Your task to perform on an android device: turn on improve location accuracy Image 0: 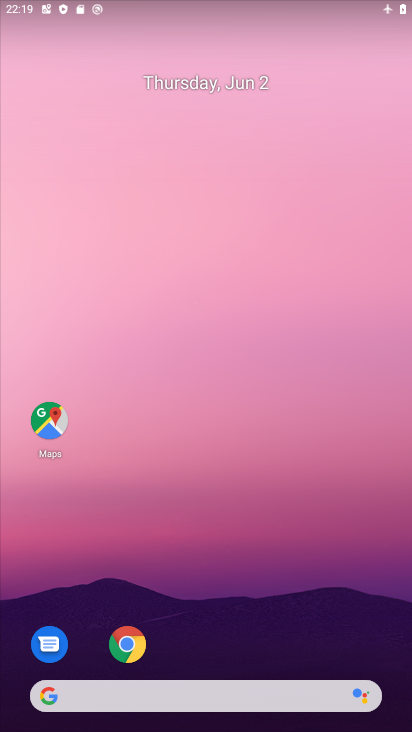
Step 0: drag from (200, 650) to (199, 127)
Your task to perform on an android device: turn on improve location accuracy Image 1: 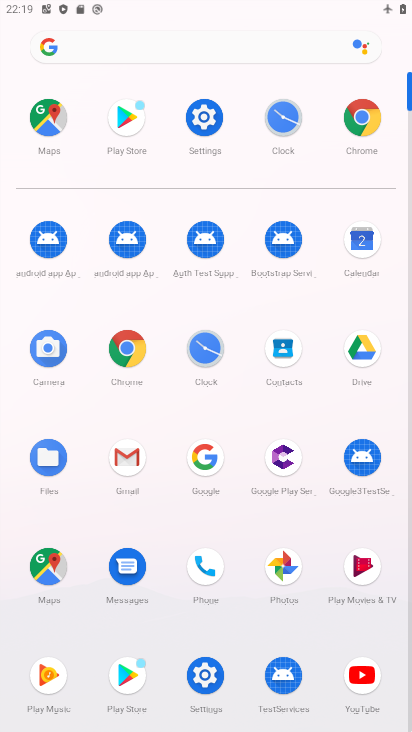
Step 1: click (208, 113)
Your task to perform on an android device: turn on improve location accuracy Image 2: 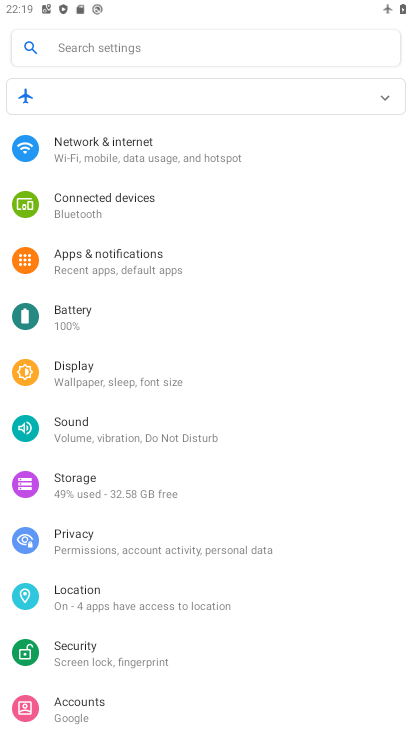
Step 2: click (74, 615)
Your task to perform on an android device: turn on improve location accuracy Image 3: 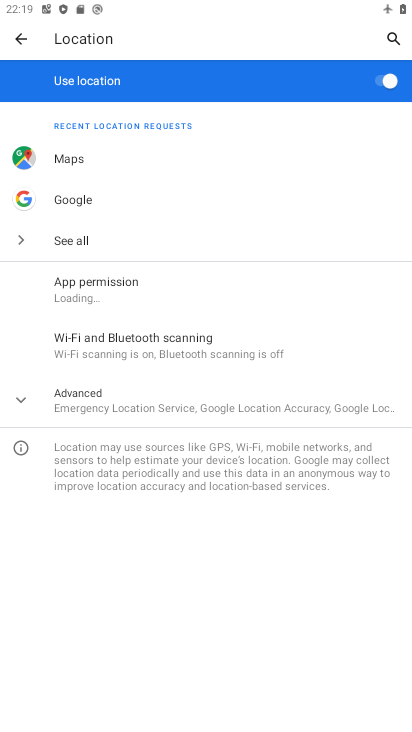
Step 3: click (69, 415)
Your task to perform on an android device: turn on improve location accuracy Image 4: 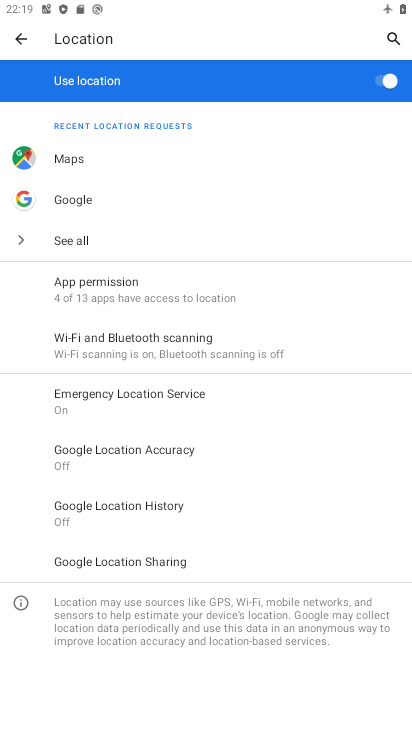
Step 4: click (127, 454)
Your task to perform on an android device: turn on improve location accuracy Image 5: 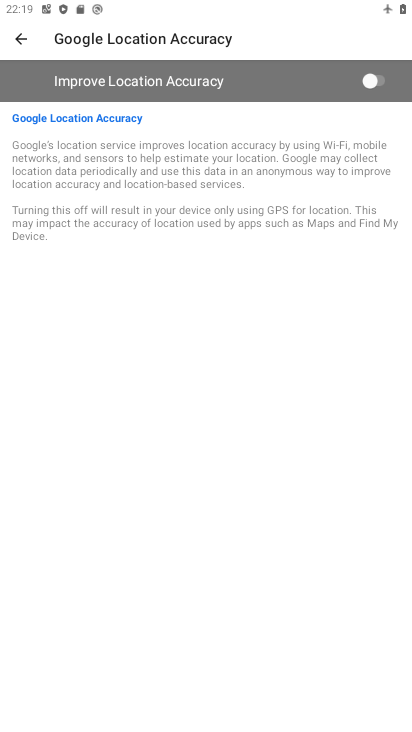
Step 5: click (395, 82)
Your task to perform on an android device: turn on improve location accuracy Image 6: 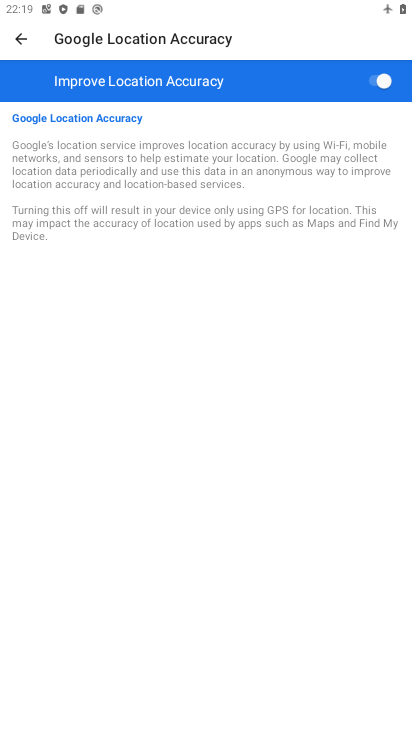
Step 6: task complete